Your task to perform on an android device: search for console tables on article.com Image 0: 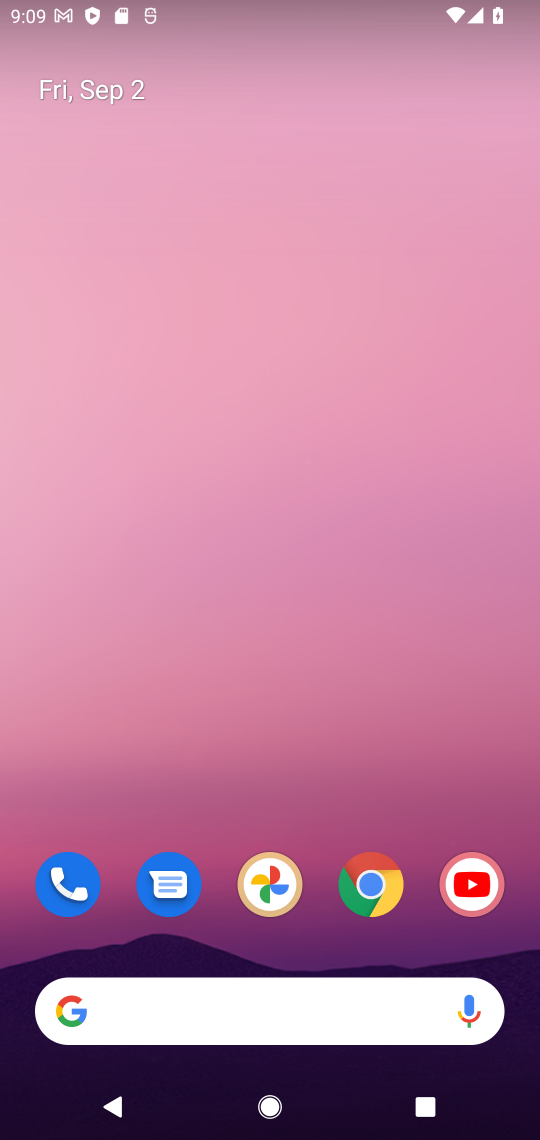
Step 0: click (371, 901)
Your task to perform on an android device: search for console tables on article.com Image 1: 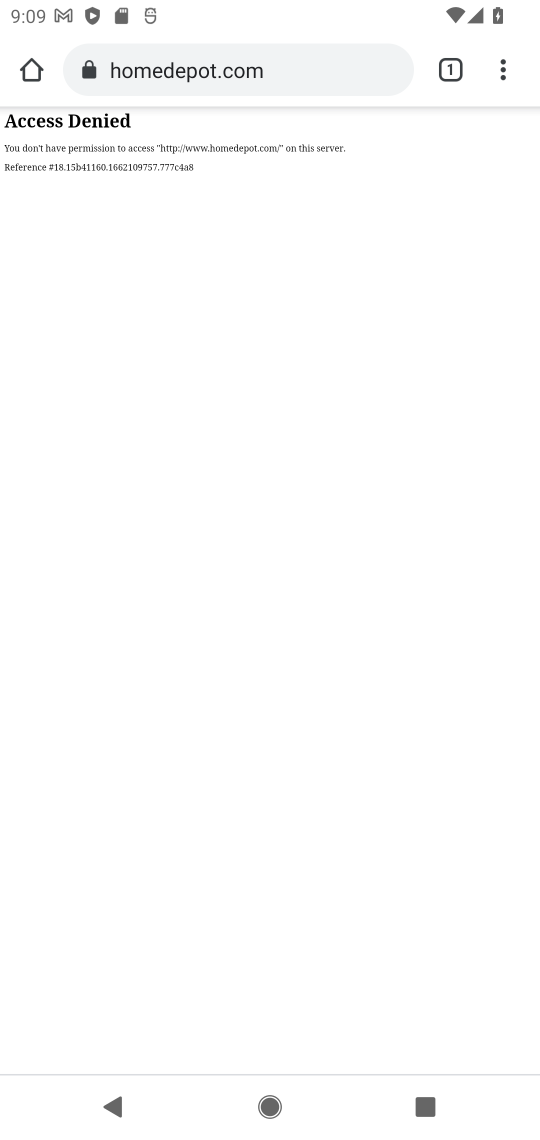
Step 1: click (256, 79)
Your task to perform on an android device: search for console tables on article.com Image 2: 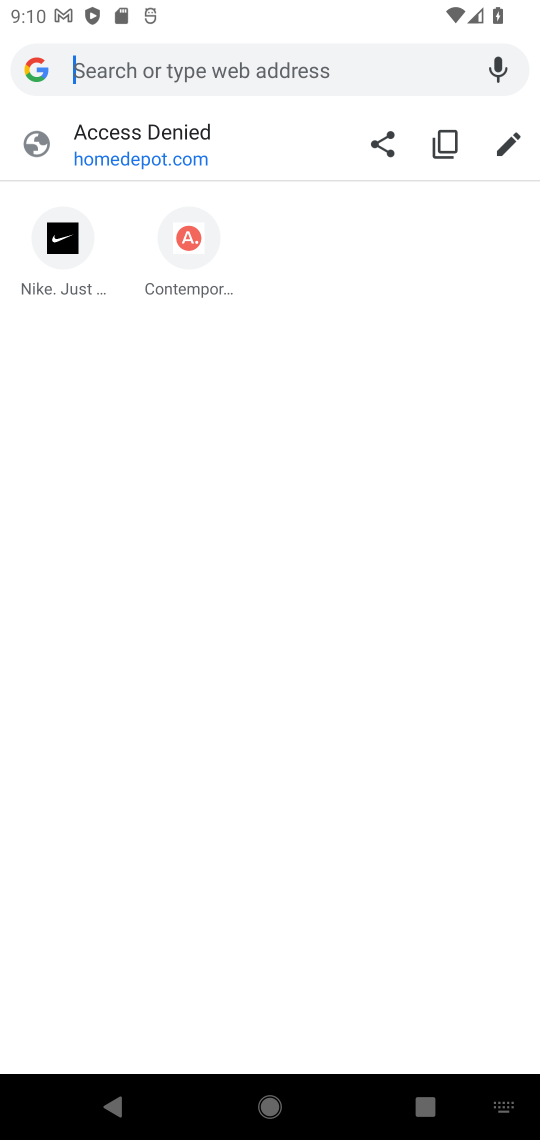
Step 2: type "article.com"
Your task to perform on an android device: search for console tables on article.com Image 3: 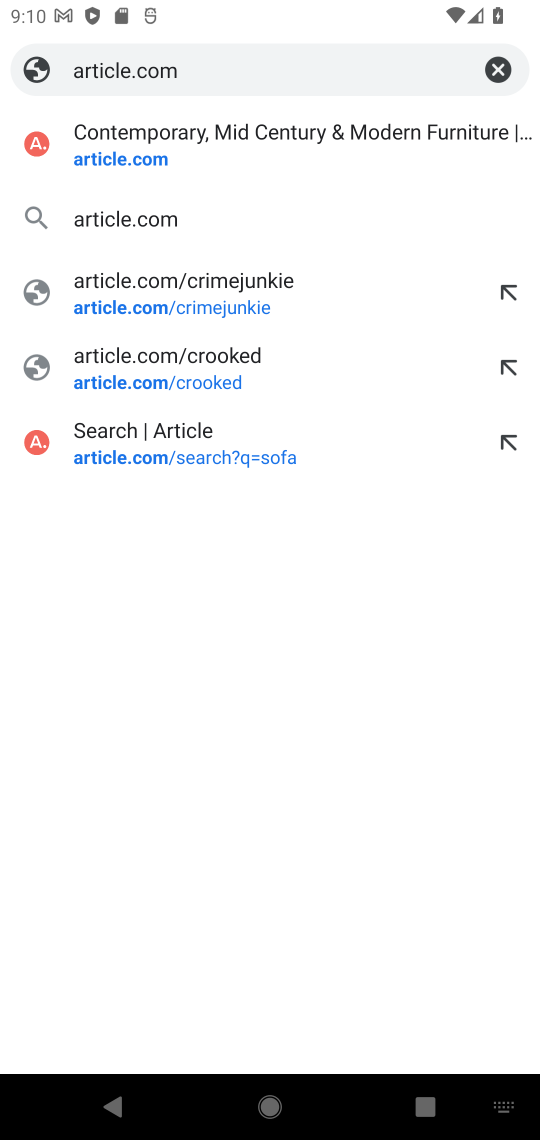
Step 3: click (107, 226)
Your task to perform on an android device: search for console tables on article.com Image 4: 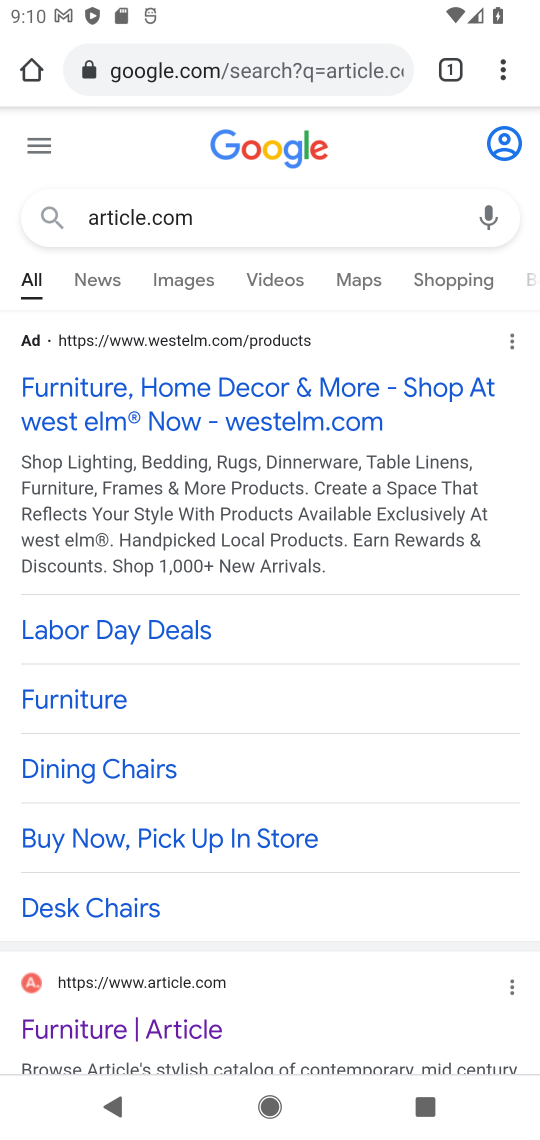
Step 4: drag from (233, 822) to (220, 411)
Your task to perform on an android device: search for console tables on article.com Image 5: 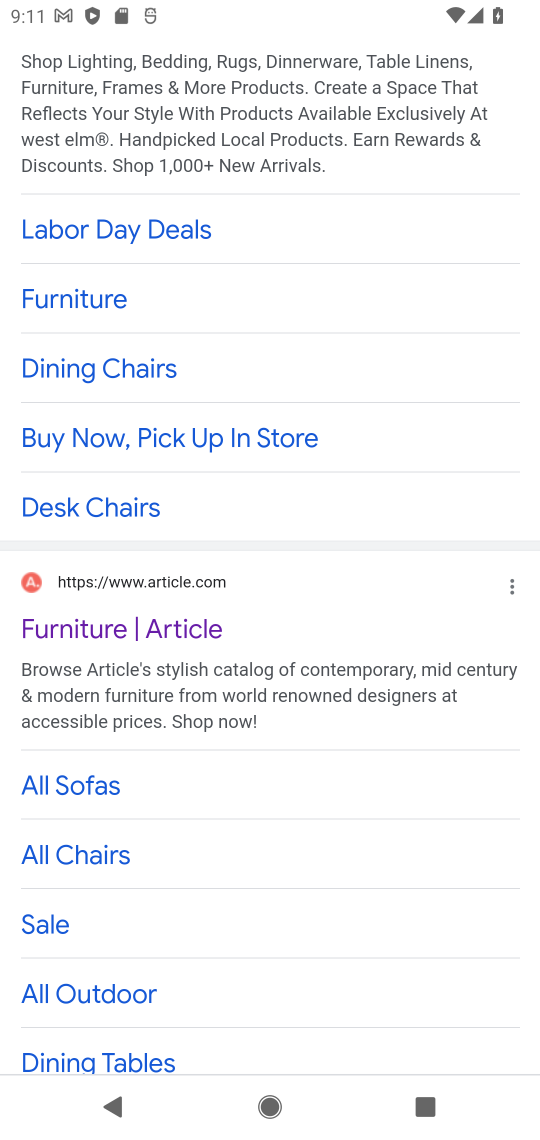
Step 5: drag from (143, 797) to (198, 317)
Your task to perform on an android device: search for console tables on article.com Image 6: 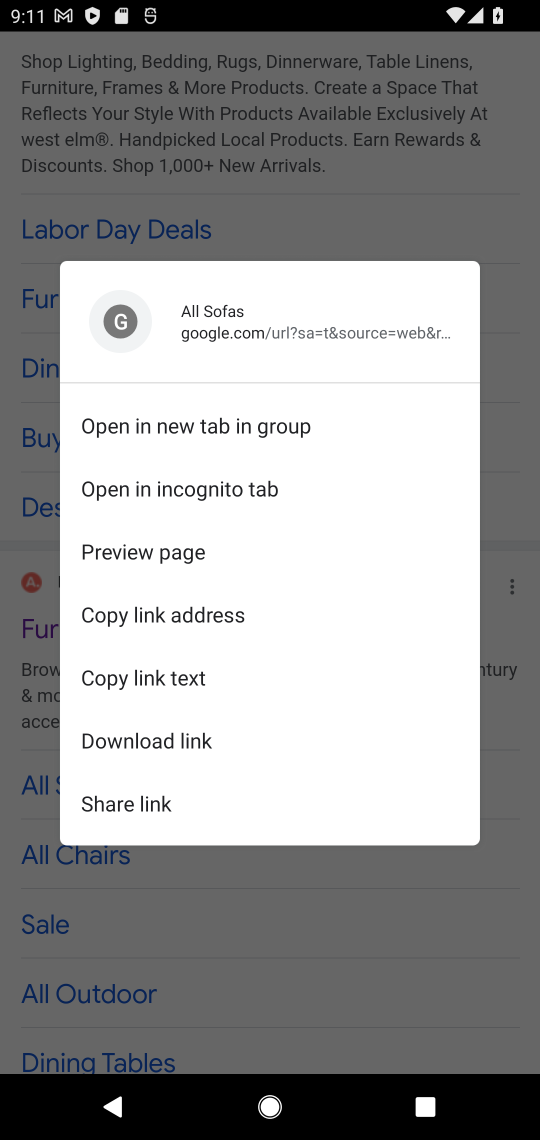
Step 6: click (520, 250)
Your task to perform on an android device: search for console tables on article.com Image 7: 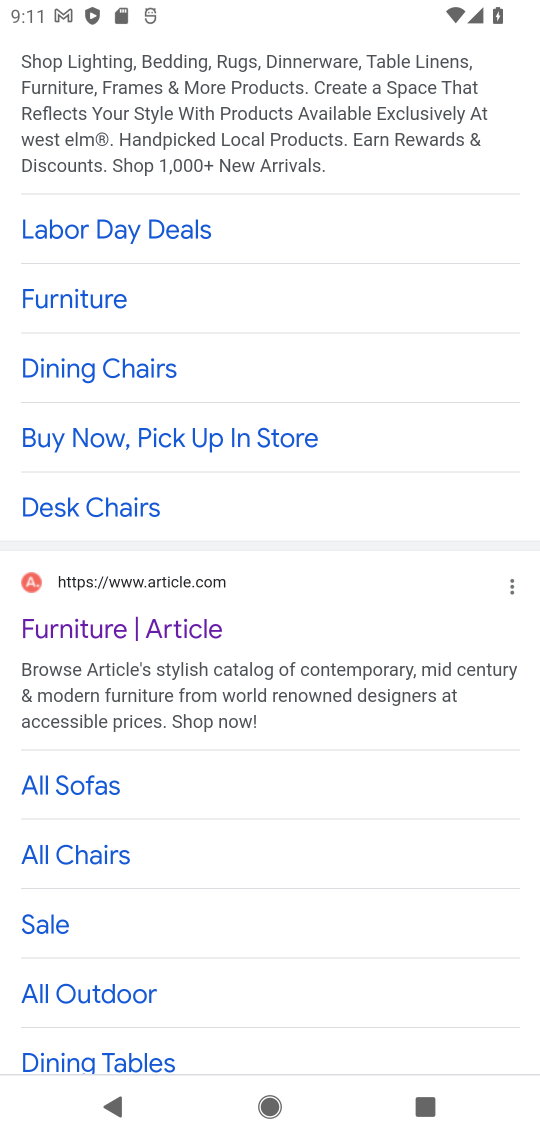
Step 7: drag from (387, 459) to (397, 776)
Your task to perform on an android device: search for console tables on article.com Image 8: 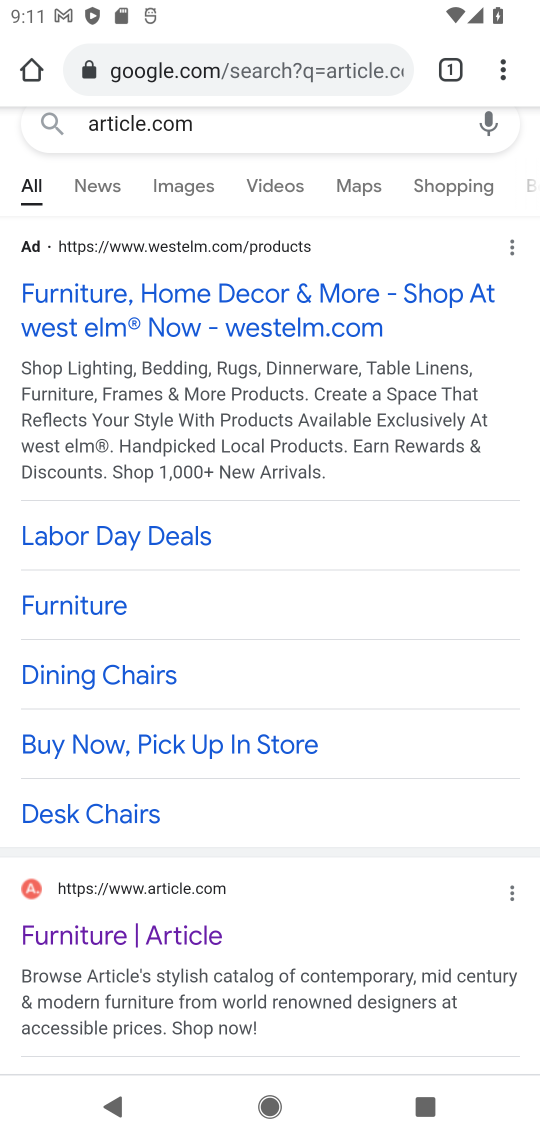
Step 8: drag from (352, 604) to (354, 468)
Your task to perform on an android device: search for console tables on article.com Image 9: 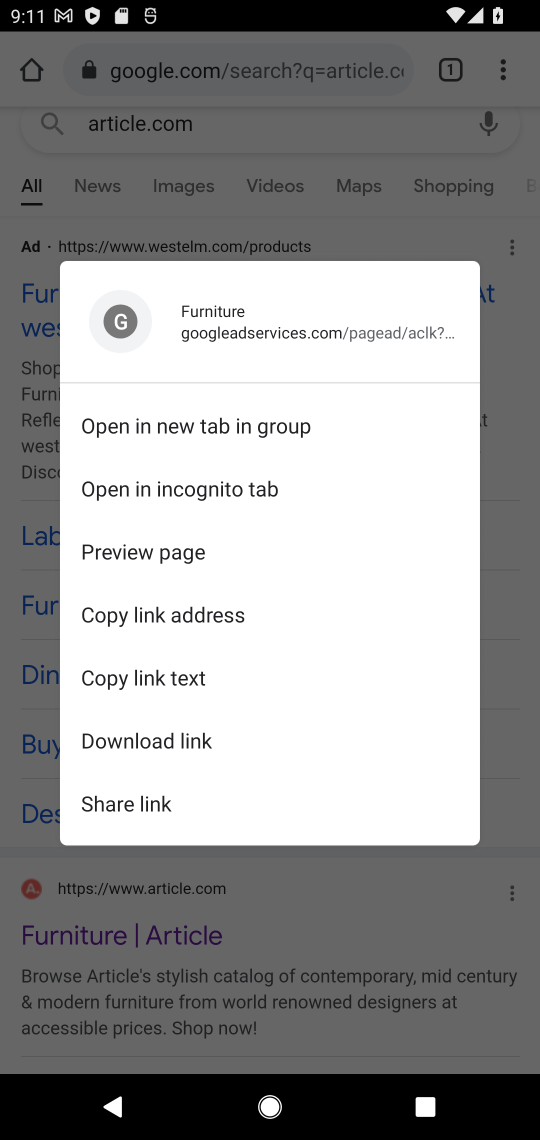
Step 9: click (524, 544)
Your task to perform on an android device: search for console tables on article.com Image 10: 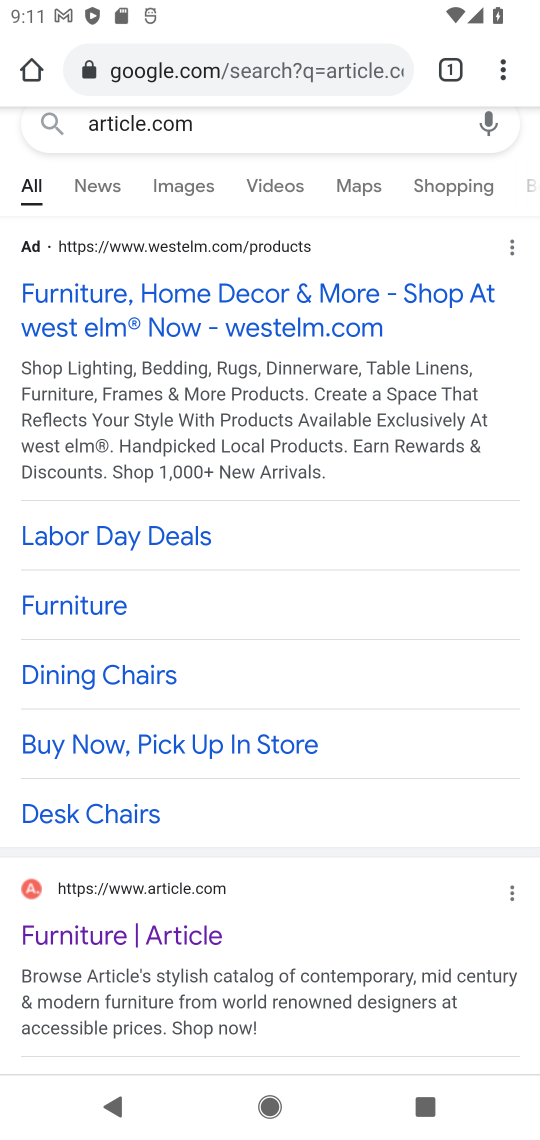
Step 10: drag from (377, 717) to (377, 258)
Your task to perform on an android device: search for console tables on article.com Image 11: 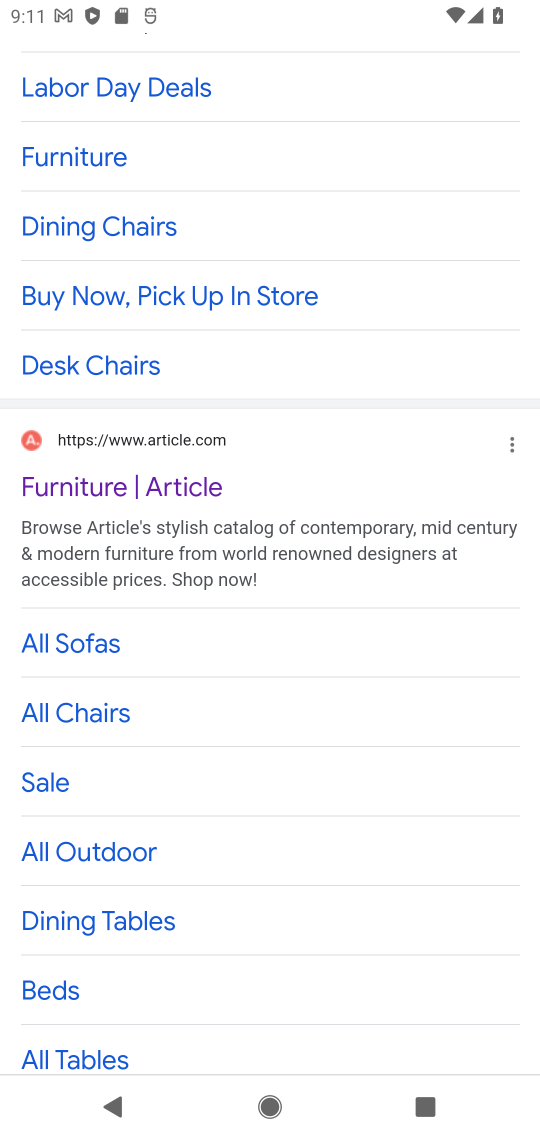
Step 11: click (139, 447)
Your task to perform on an android device: search for console tables on article.com Image 12: 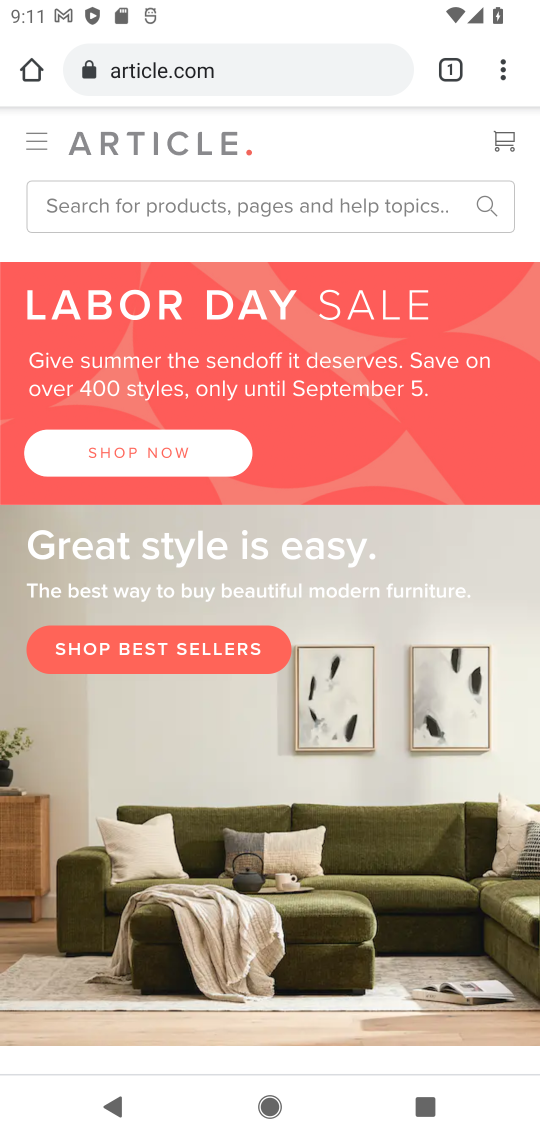
Step 12: click (219, 198)
Your task to perform on an android device: search for console tables on article.com Image 13: 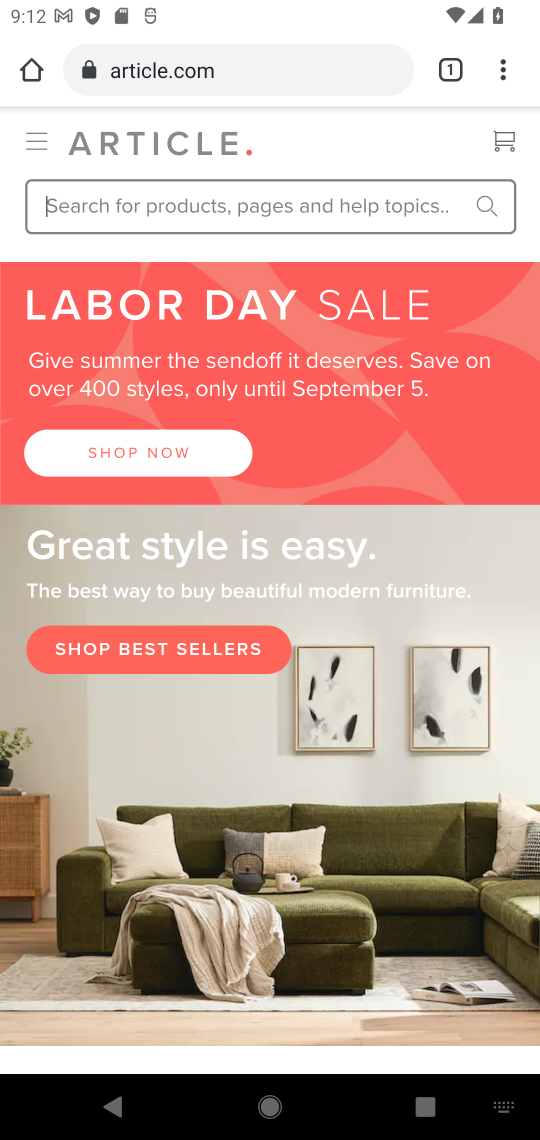
Step 13: type "console tables"
Your task to perform on an android device: search for console tables on article.com Image 14: 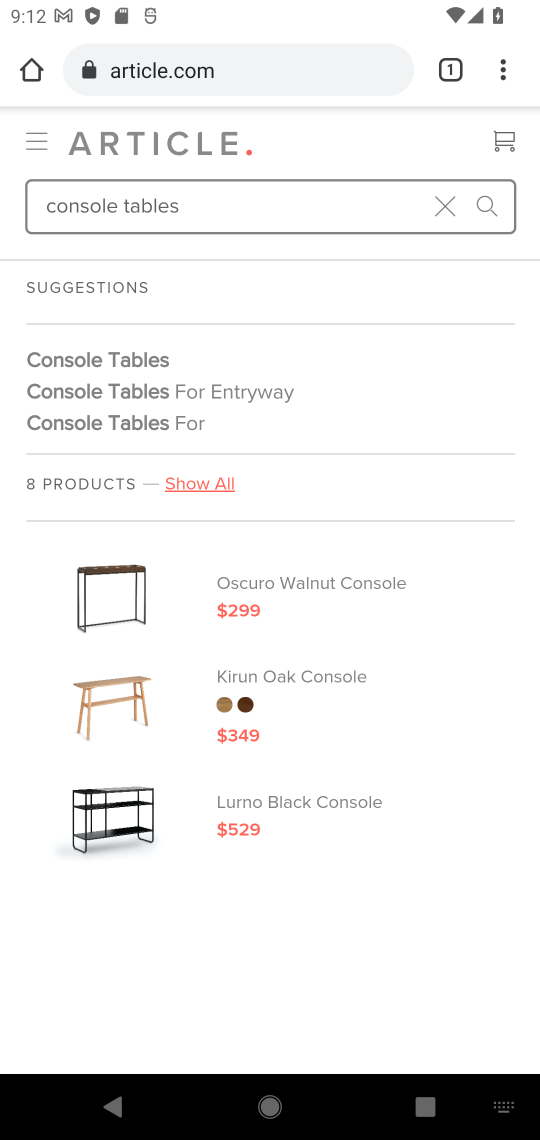
Step 14: click (134, 364)
Your task to perform on an android device: search for console tables on article.com Image 15: 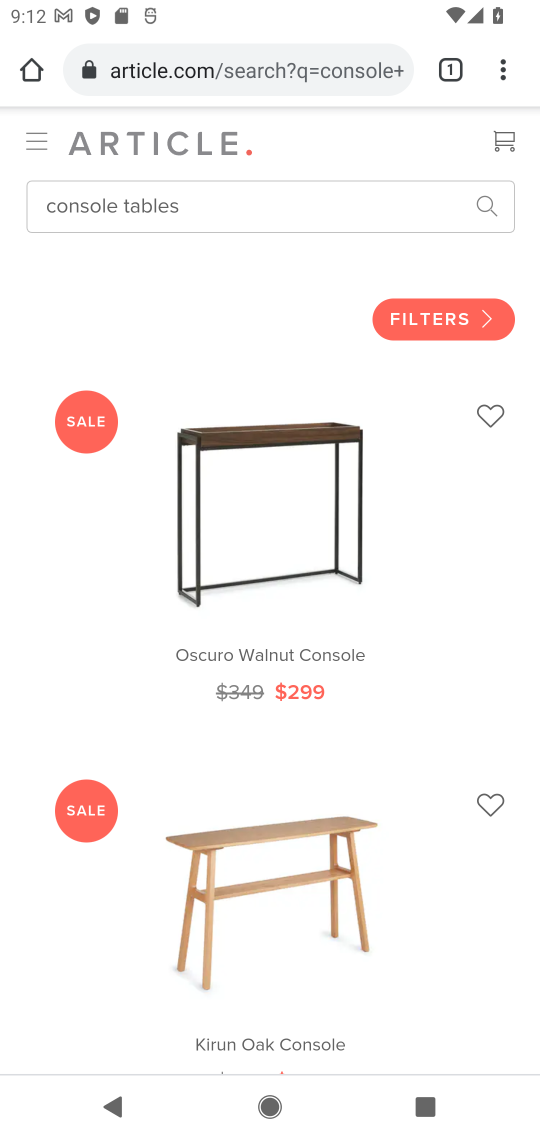
Step 15: task complete